Your task to perform on an android device: Open ESPN.com Image 0: 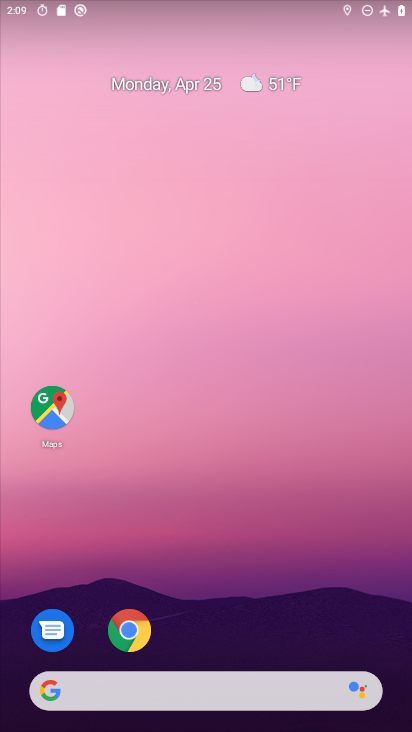
Step 0: drag from (324, 532) to (362, 44)
Your task to perform on an android device: Open ESPN.com Image 1: 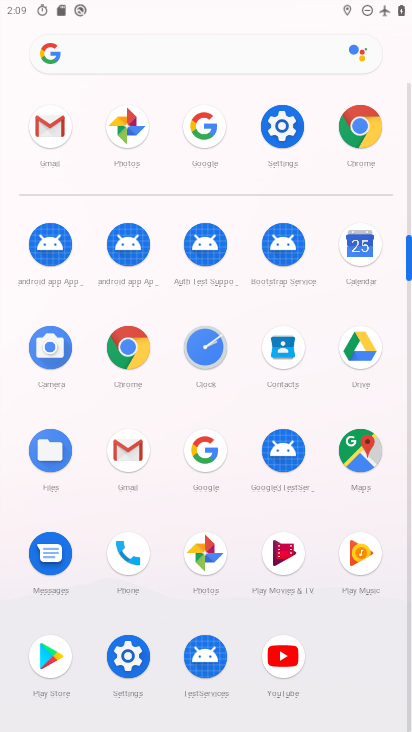
Step 1: click (372, 135)
Your task to perform on an android device: Open ESPN.com Image 2: 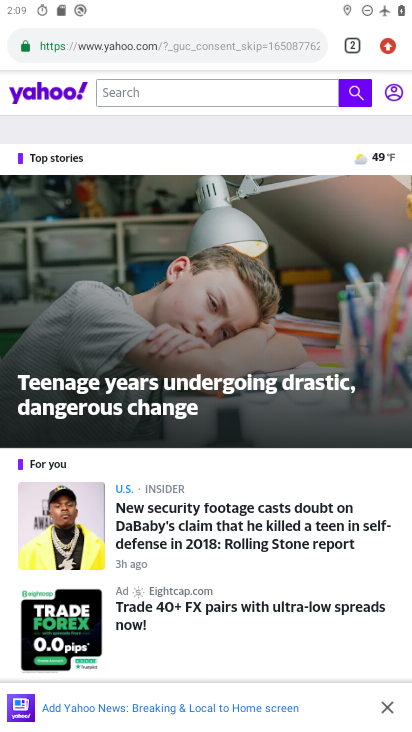
Step 2: click (390, 41)
Your task to perform on an android device: Open ESPN.com Image 3: 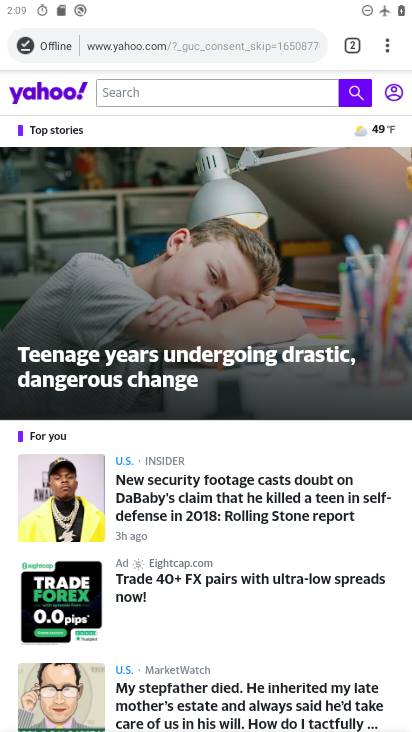
Step 3: drag from (390, 44) to (232, 138)
Your task to perform on an android device: Open ESPN.com Image 4: 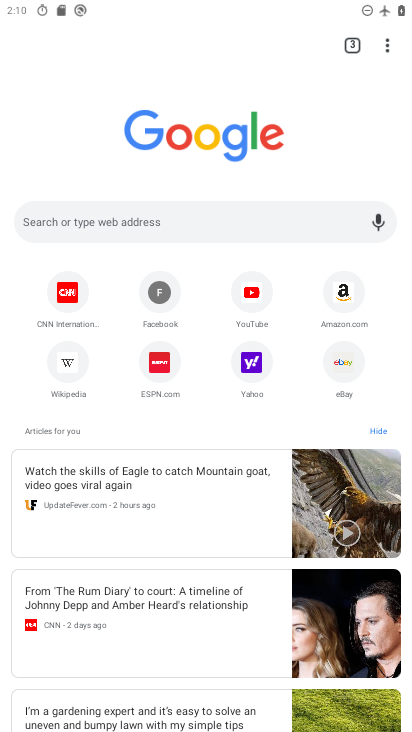
Step 4: click (166, 371)
Your task to perform on an android device: Open ESPN.com Image 5: 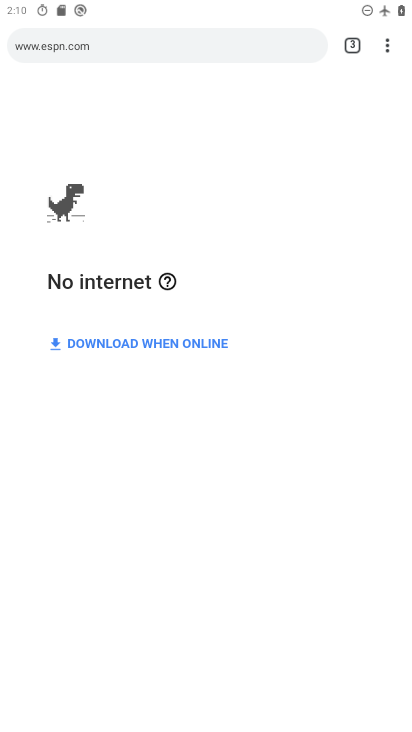
Step 5: task complete